Your task to perform on an android device: turn off picture-in-picture Image 0: 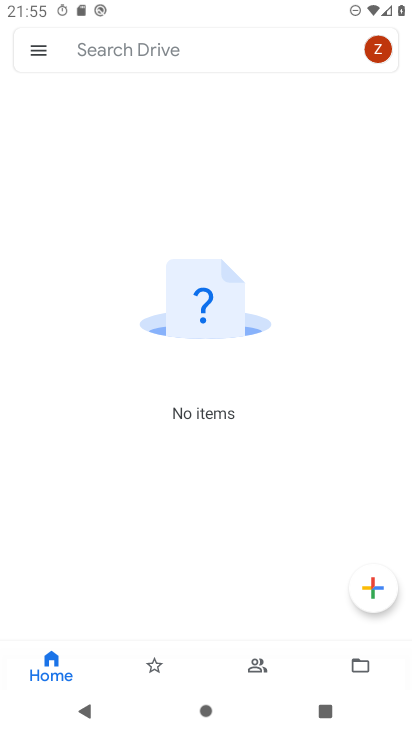
Step 0: press home button
Your task to perform on an android device: turn off picture-in-picture Image 1: 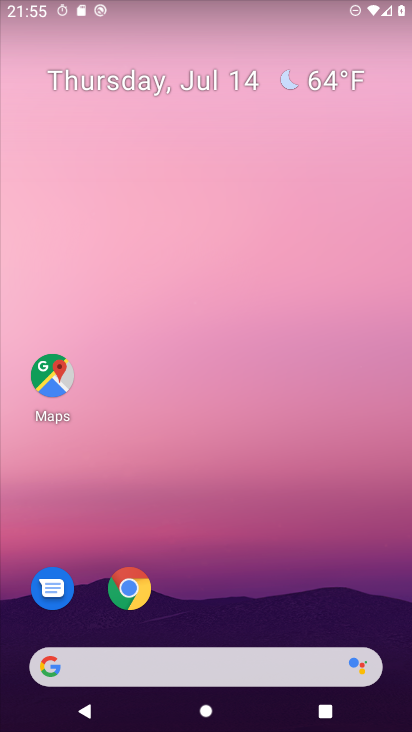
Step 1: drag from (365, 566) to (370, 101)
Your task to perform on an android device: turn off picture-in-picture Image 2: 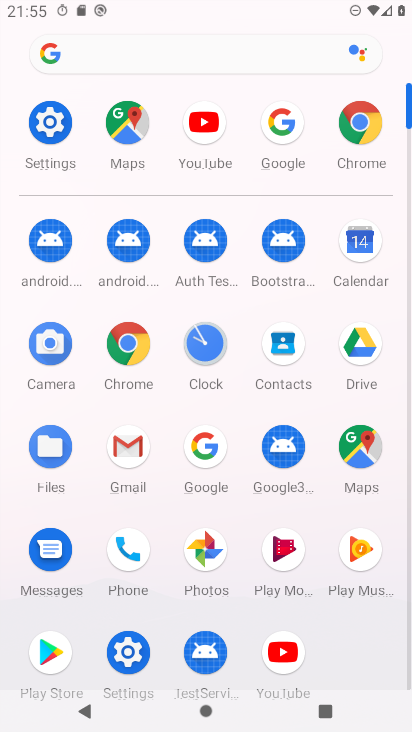
Step 2: click (358, 133)
Your task to perform on an android device: turn off picture-in-picture Image 3: 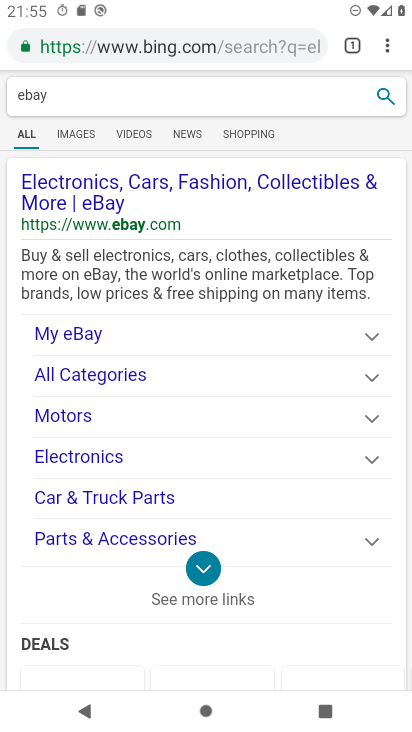
Step 3: click (385, 53)
Your task to perform on an android device: turn off picture-in-picture Image 4: 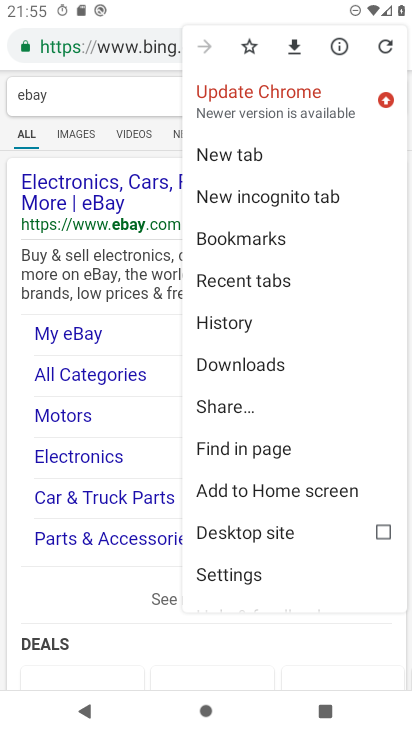
Step 4: click (288, 584)
Your task to perform on an android device: turn off picture-in-picture Image 5: 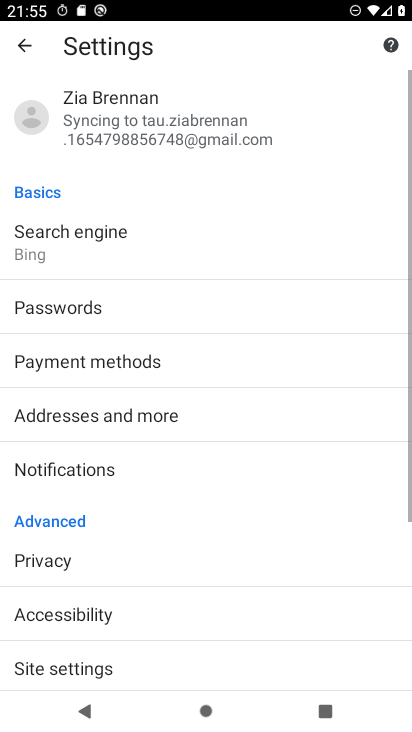
Step 5: drag from (288, 584) to (285, 499)
Your task to perform on an android device: turn off picture-in-picture Image 6: 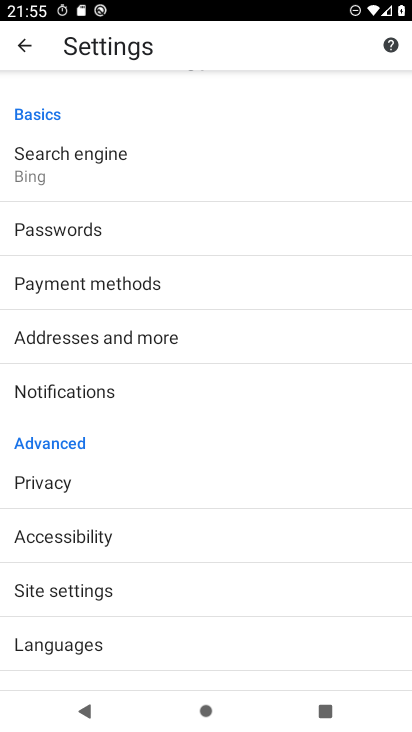
Step 6: drag from (286, 577) to (296, 405)
Your task to perform on an android device: turn off picture-in-picture Image 7: 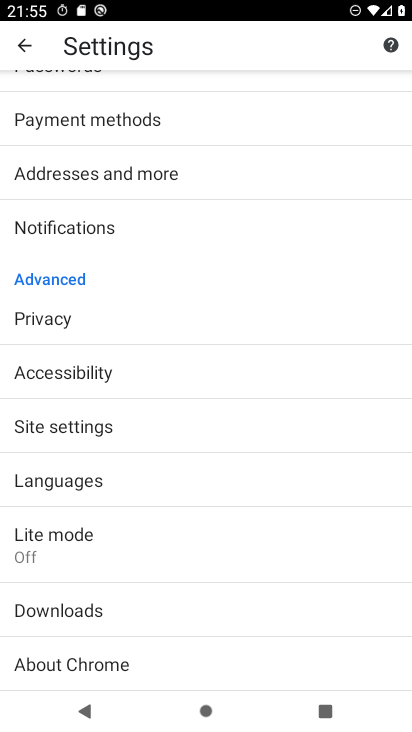
Step 7: drag from (288, 553) to (295, 323)
Your task to perform on an android device: turn off picture-in-picture Image 8: 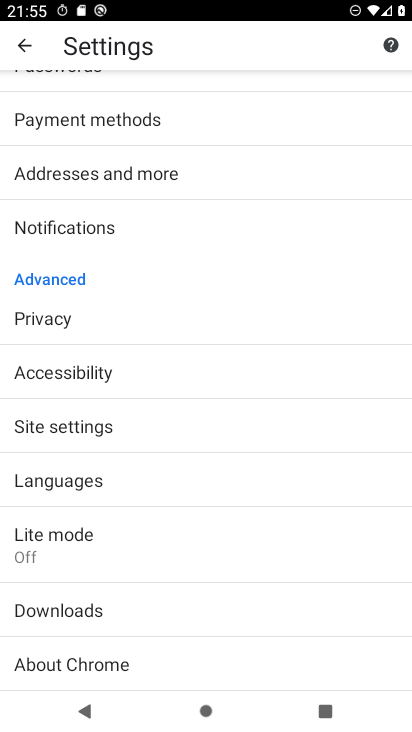
Step 8: click (282, 427)
Your task to perform on an android device: turn off picture-in-picture Image 9: 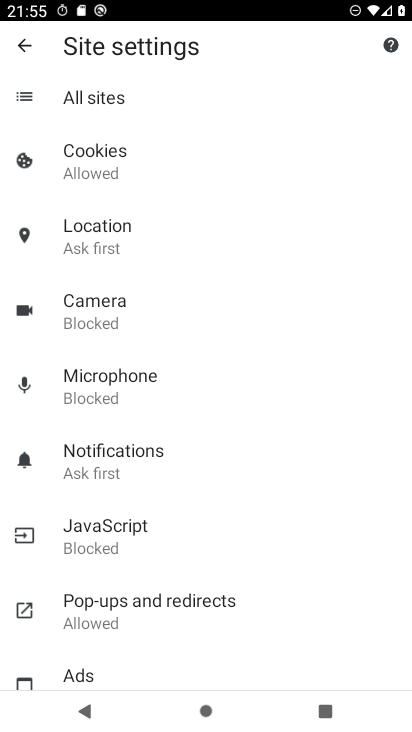
Step 9: drag from (289, 496) to (317, 240)
Your task to perform on an android device: turn off picture-in-picture Image 10: 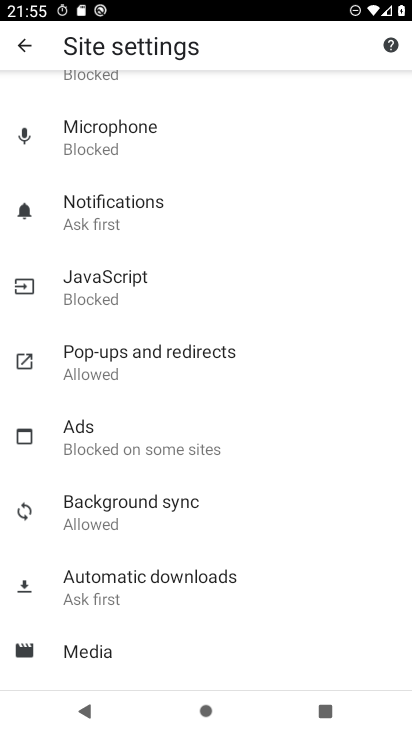
Step 10: drag from (311, 416) to (321, 248)
Your task to perform on an android device: turn off picture-in-picture Image 11: 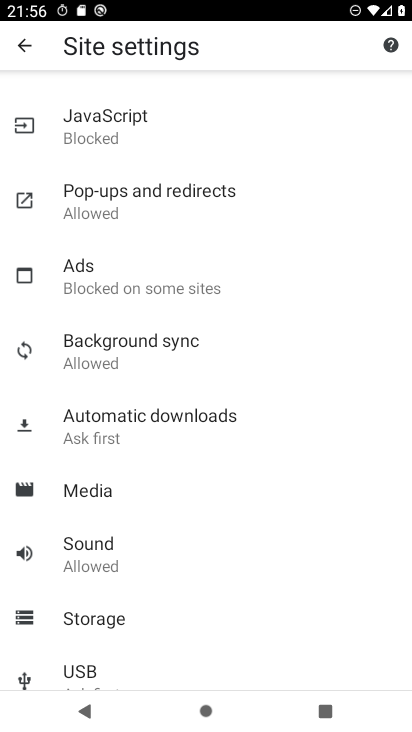
Step 11: drag from (302, 243) to (310, 407)
Your task to perform on an android device: turn off picture-in-picture Image 12: 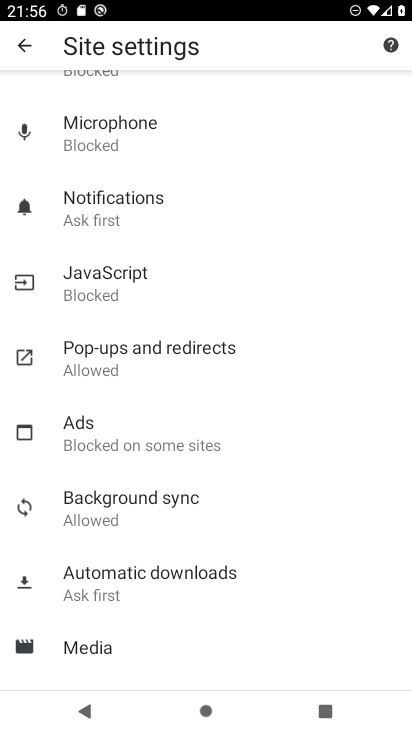
Step 12: drag from (286, 261) to (292, 403)
Your task to perform on an android device: turn off picture-in-picture Image 13: 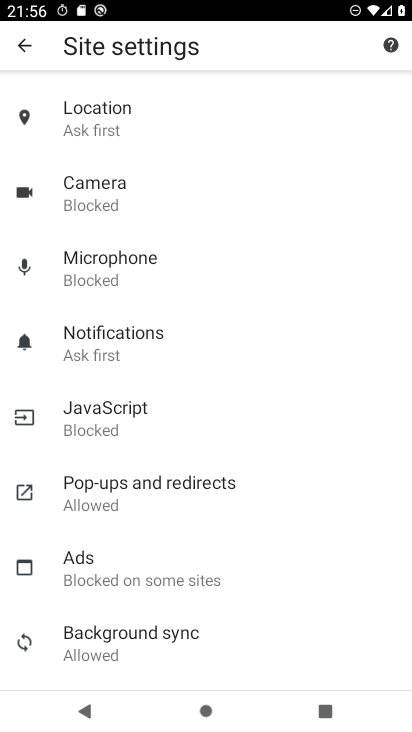
Step 13: click (264, 489)
Your task to perform on an android device: turn off picture-in-picture Image 14: 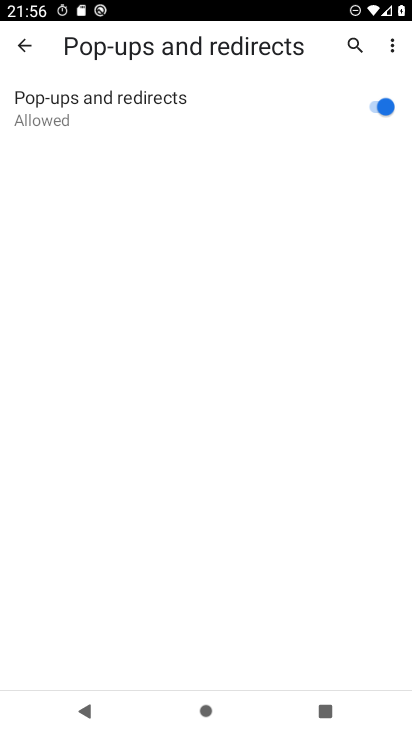
Step 14: click (380, 107)
Your task to perform on an android device: turn off picture-in-picture Image 15: 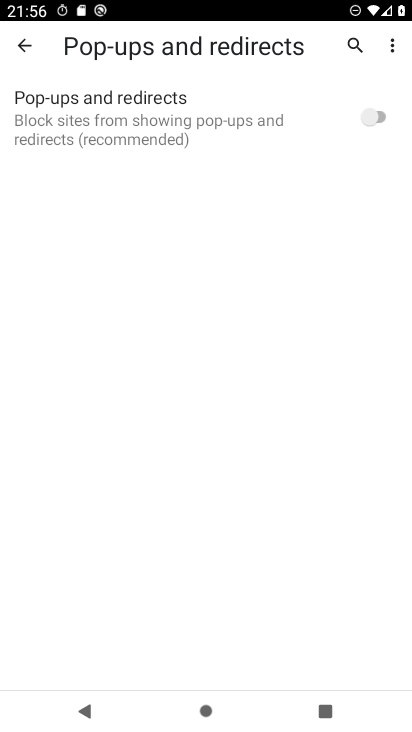
Step 15: task complete